Your task to perform on an android device: Show me popular games on the Play Store Image 0: 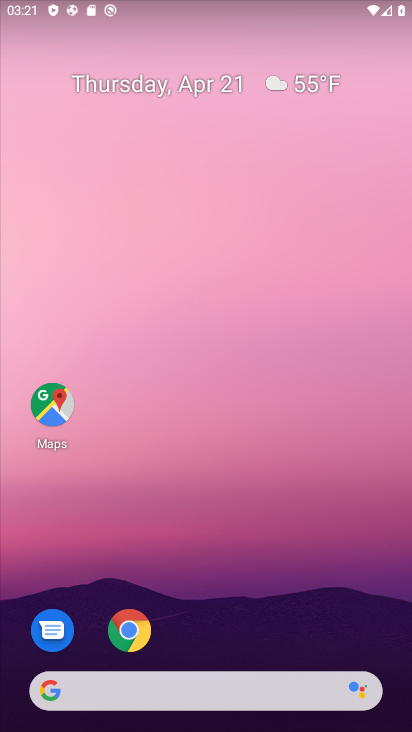
Step 0: drag from (220, 608) to (372, 4)
Your task to perform on an android device: Show me popular games on the Play Store Image 1: 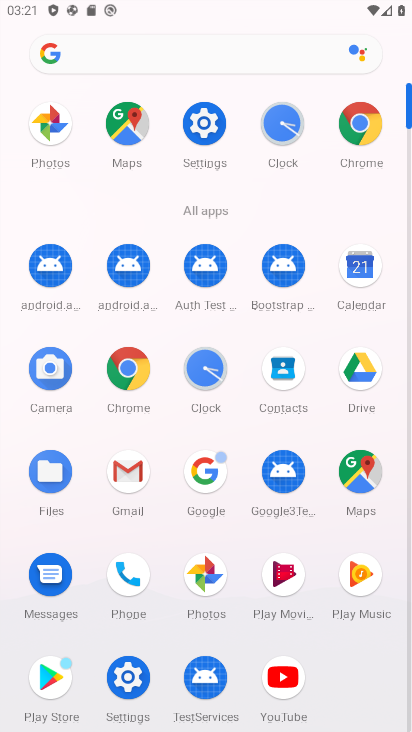
Step 1: click (58, 678)
Your task to perform on an android device: Show me popular games on the Play Store Image 2: 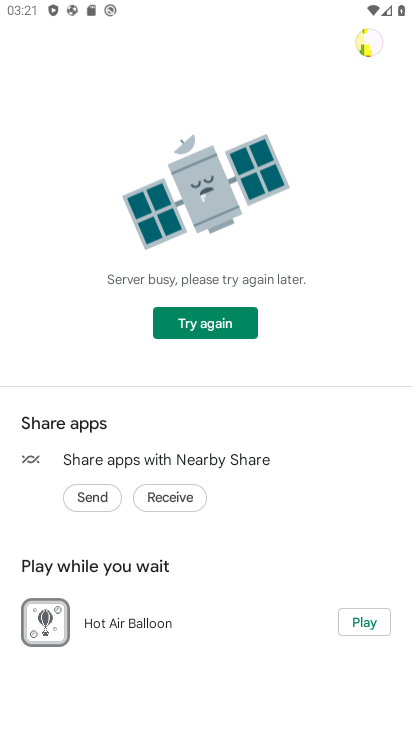
Step 2: click (205, 322)
Your task to perform on an android device: Show me popular games on the Play Store Image 3: 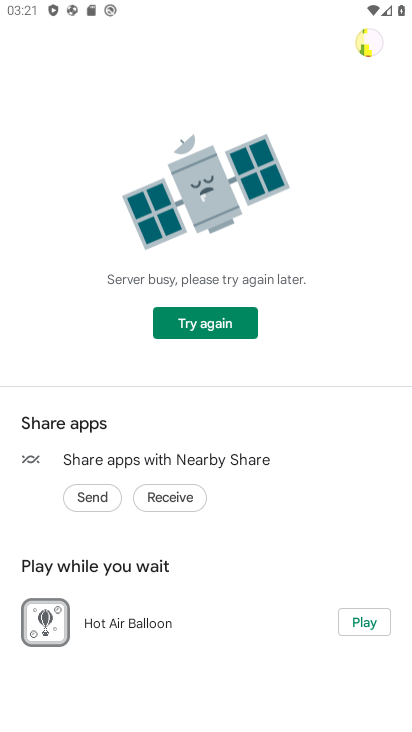
Step 3: click (214, 327)
Your task to perform on an android device: Show me popular games on the Play Store Image 4: 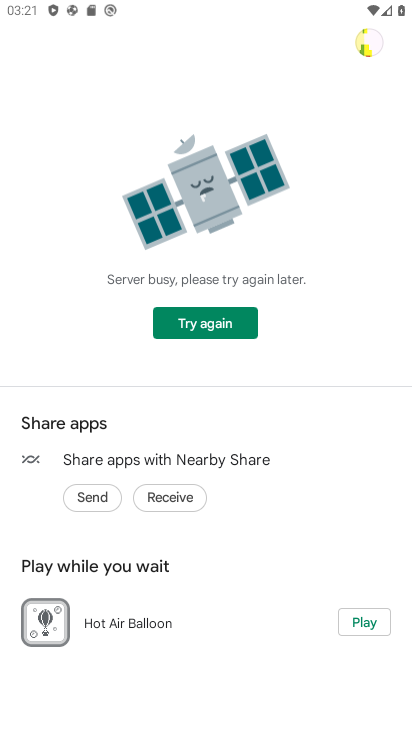
Step 4: task complete